Your task to perform on an android device: Go to network settings Image 0: 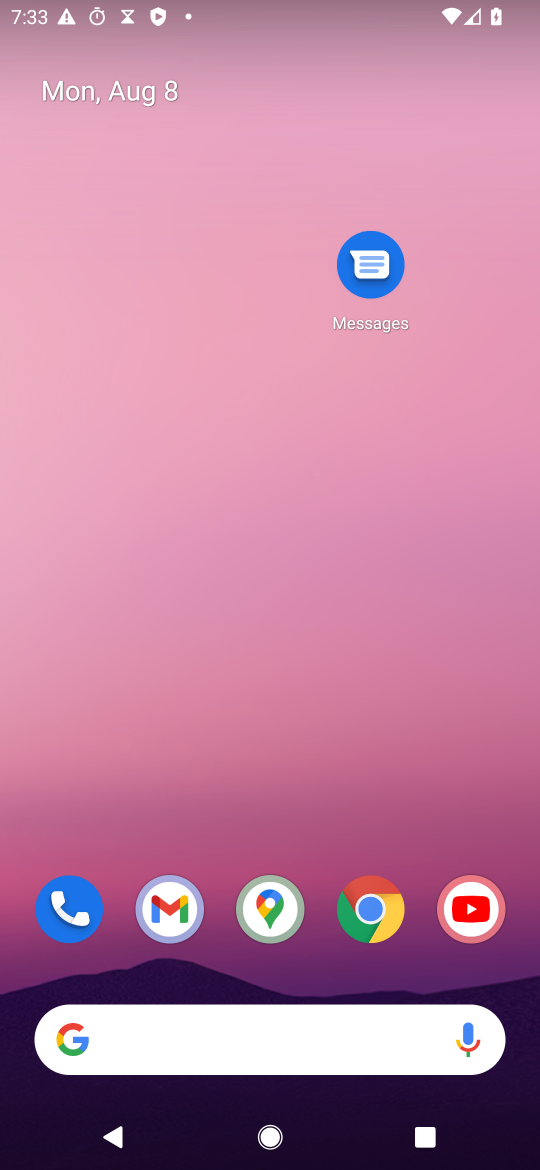
Step 0: click (533, 35)
Your task to perform on an android device: Go to network settings Image 1: 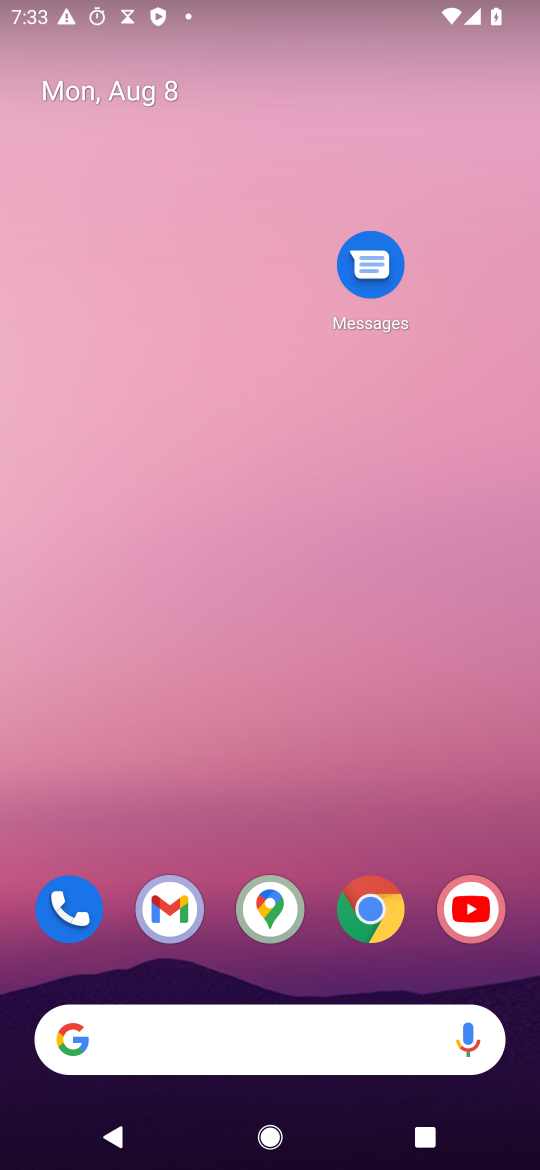
Step 1: drag from (253, 1044) to (522, 78)
Your task to perform on an android device: Go to network settings Image 2: 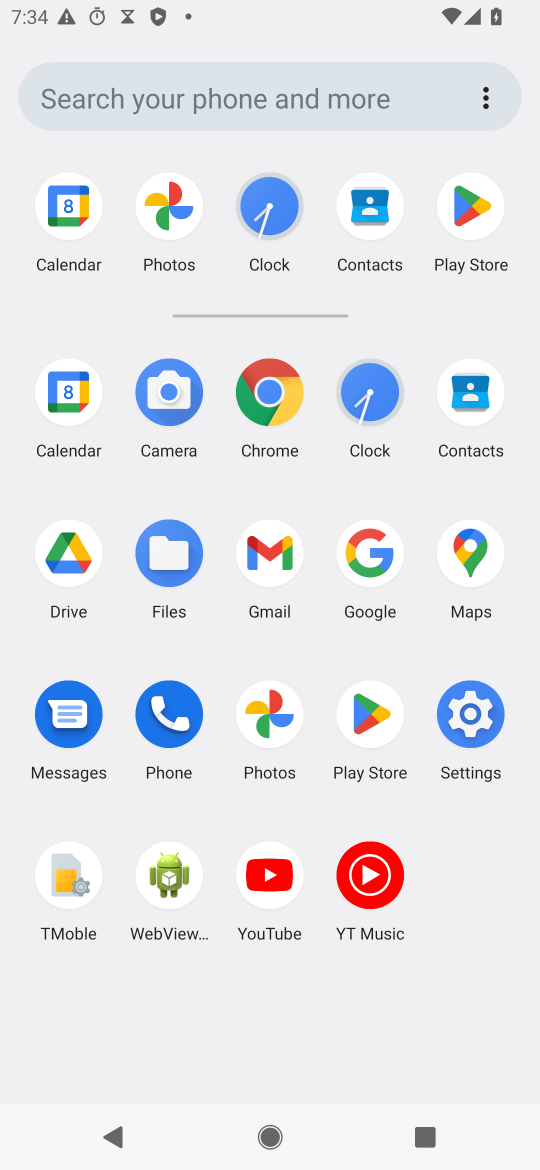
Step 2: click (482, 733)
Your task to perform on an android device: Go to network settings Image 3: 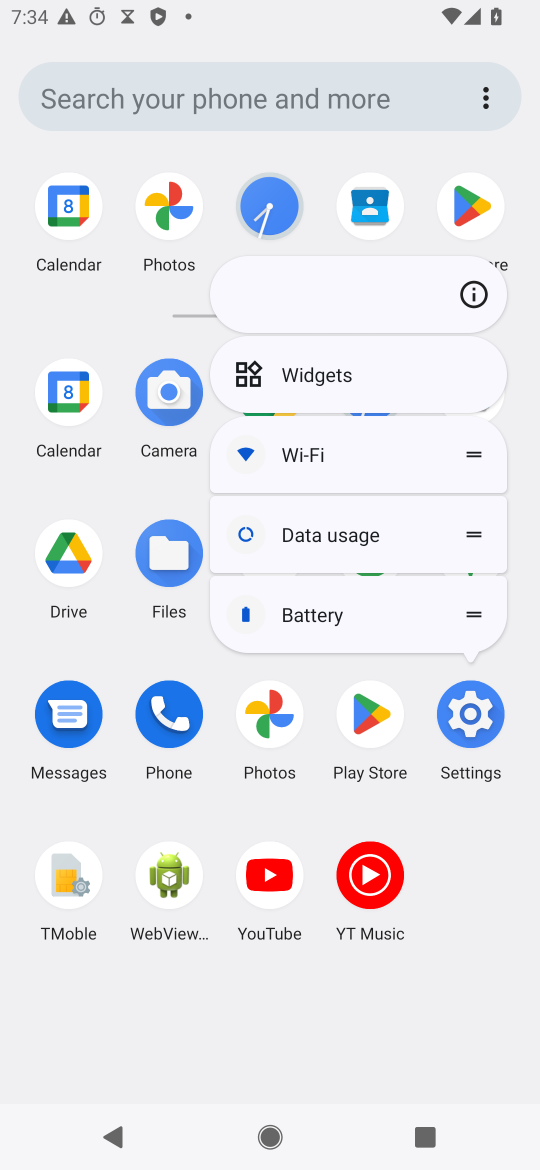
Step 3: click (473, 717)
Your task to perform on an android device: Go to network settings Image 4: 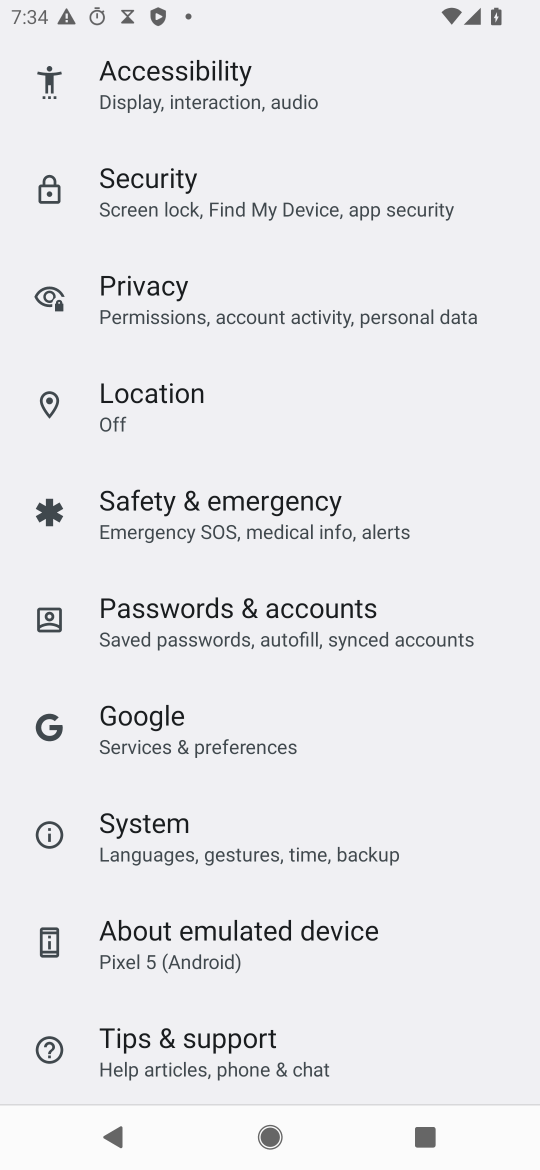
Step 4: drag from (363, 141) to (226, 1059)
Your task to perform on an android device: Go to network settings Image 5: 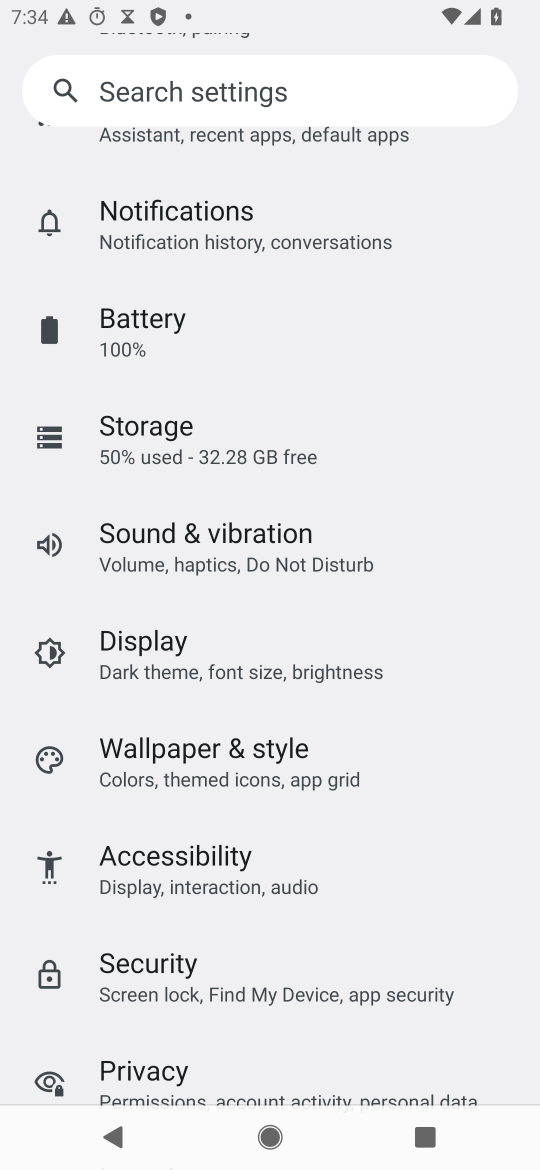
Step 5: drag from (340, 379) to (308, 1061)
Your task to perform on an android device: Go to network settings Image 6: 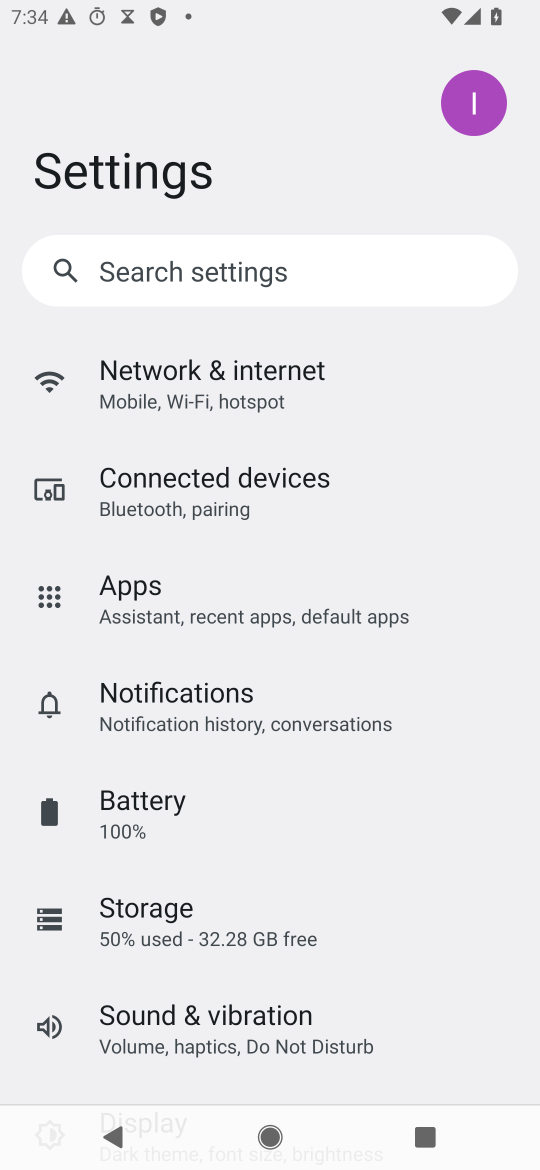
Step 6: click (215, 370)
Your task to perform on an android device: Go to network settings Image 7: 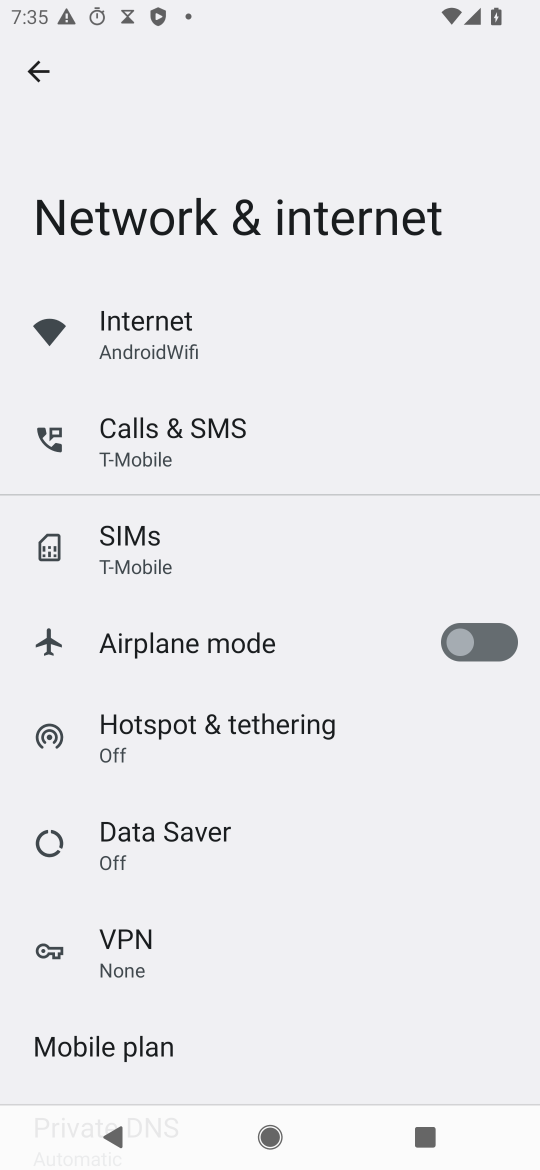
Step 7: task complete